Your task to perform on an android device: toggle data saver in the chrome app Image 0: 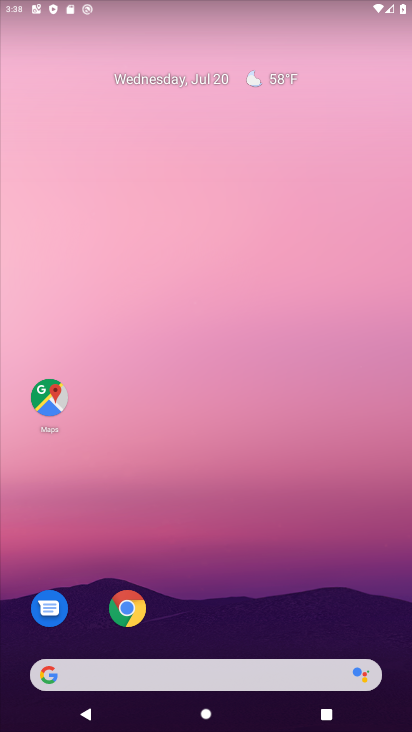
Step 0: click (131, 606)
Your task to perform on an android device: toggle data saver in the chrome app Image 1: 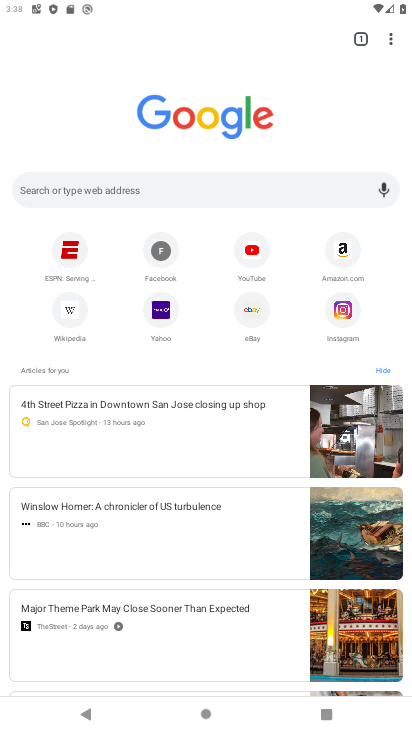
Step 1: click (392, 30)
Your task to perform on an android device: toggle data saver in the chrome app Image 2: 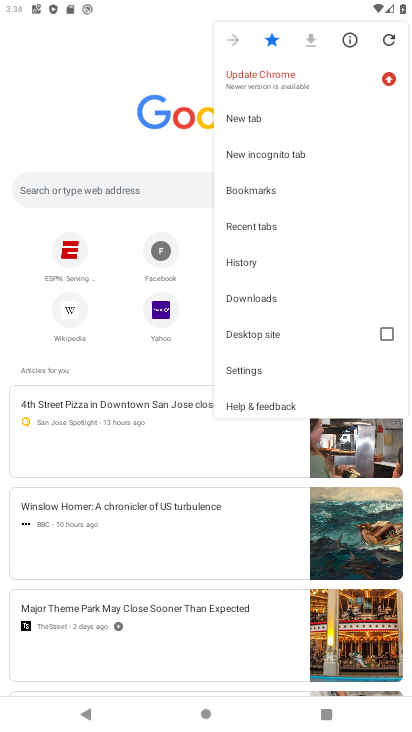
Step 2: click (249, 364)
Your task to perform on an android device: toggle data saver in the chrome app Image 3: 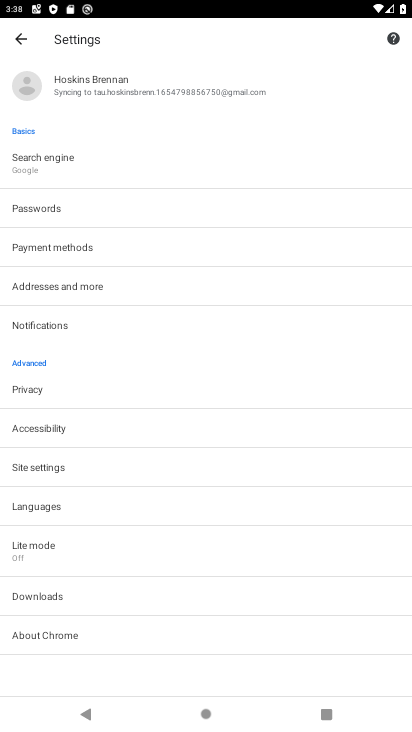
Step 3: click (29, 544)
Your task to perform on an android device: toggle data saver in the chrome app Image 4: 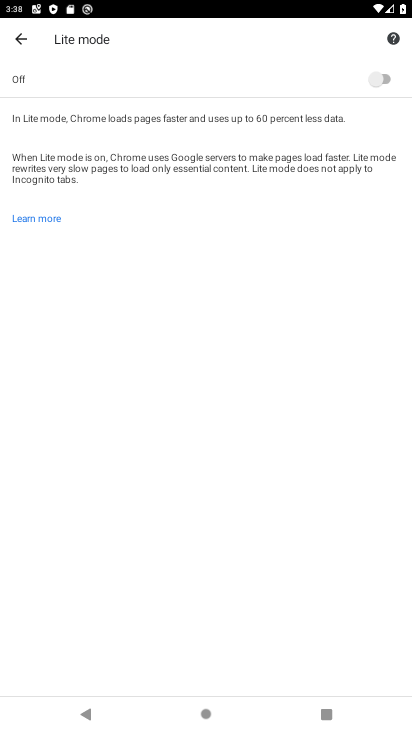
Step 4: click (393, 79)
Your task to perform on an android device: toggle data saver in the chrome app Image 5: 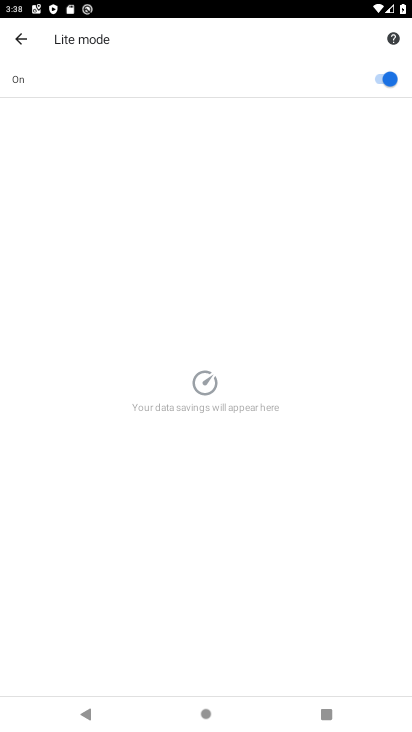
Step 5: task complete